Your task to perform on an android device: Show me popular games on the Play Store Image 0: 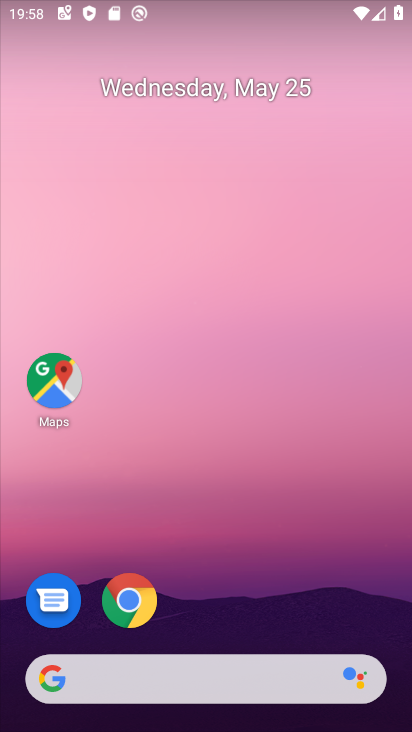
Step 0: drag from (325, 546) to (249, 7)
Your task to perform on an android device: Show me popular games on the Play Store Image 1: 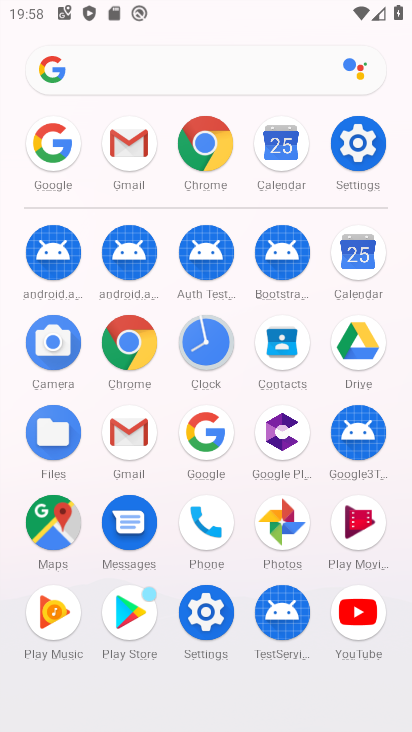
Step 1: click (136, 603)
Your task to perform on an android device: Show me popular games on the Play Store Image 2: 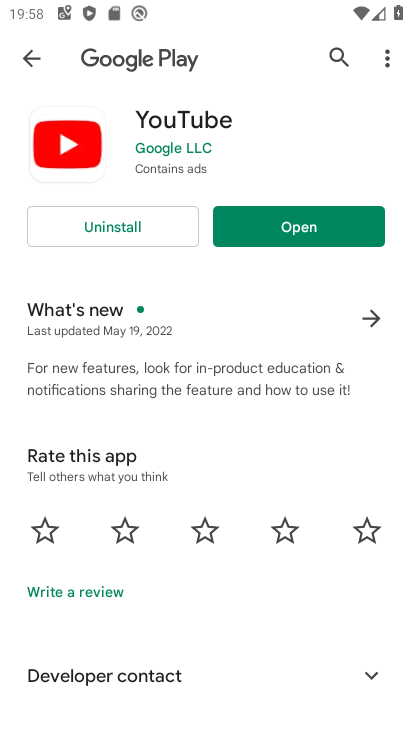
Step 2: click (27, 54)
Your task to perform on an android device: Show me popular games on the Play Store Image 3: 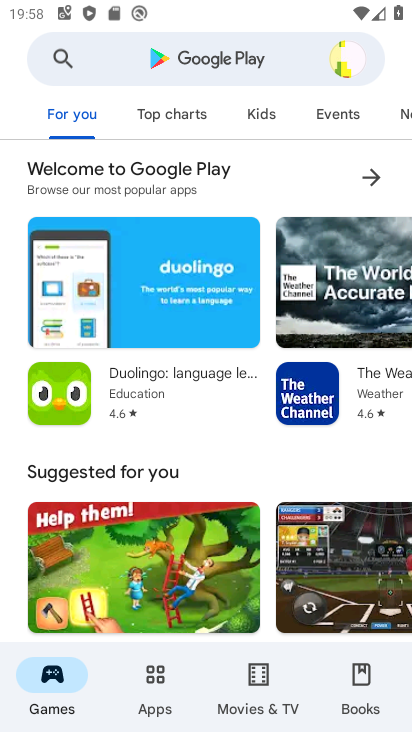
Step 3: click (162, 682)
Your task to perform on an android device: Show me popular games on the Play Store Image 4: 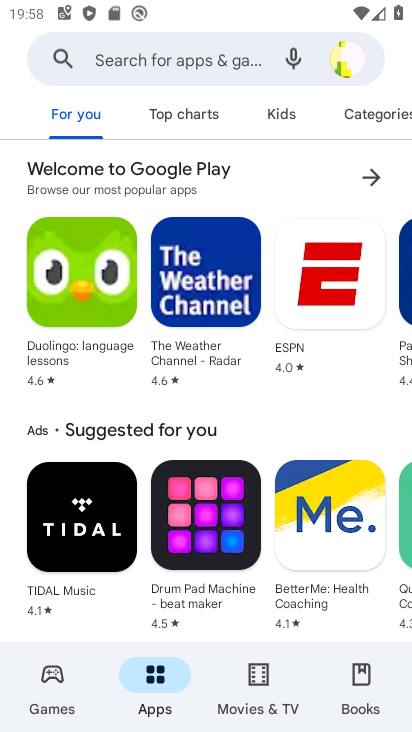
Step 4: click (64, 685)
Your task to perform on an android device: Show me popular games on the Play Store Image 5: 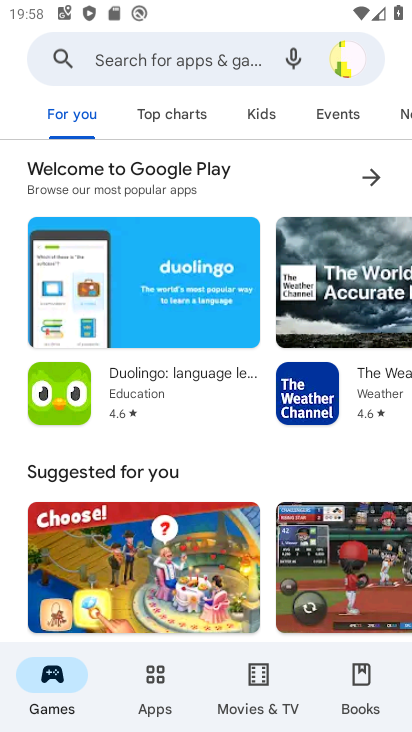
Step 5: click (193, 110)
Your task to perform on an android device: Show me popular games on the Play Store Image 6: 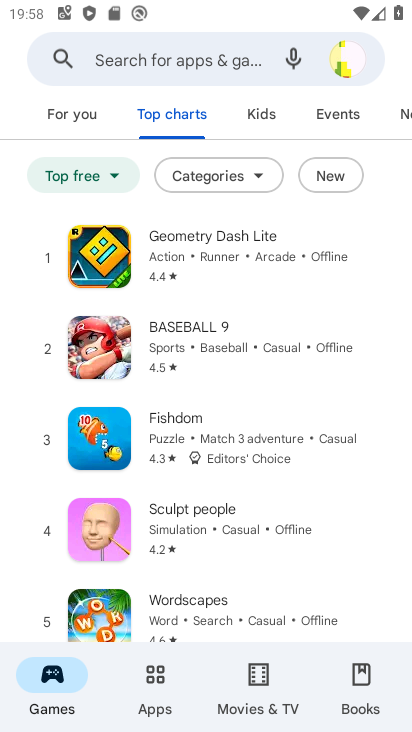
Step 6: task complete